Your task to perform on an android device: turn on bluetooth scan Image 0: 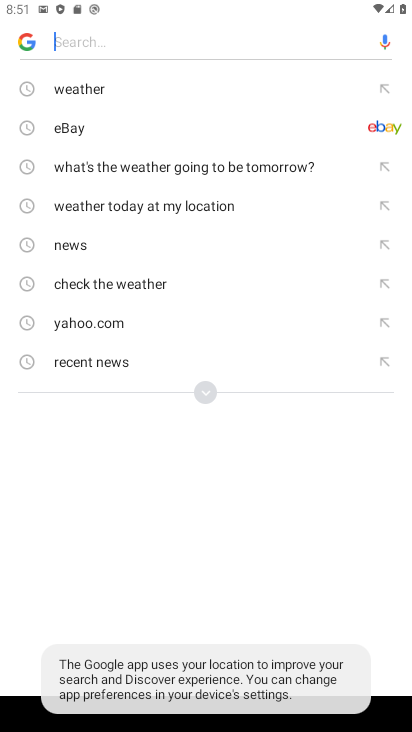
Step 0: press home button
Your task to perform on an android device: turn on bluetooth scan Image 1: 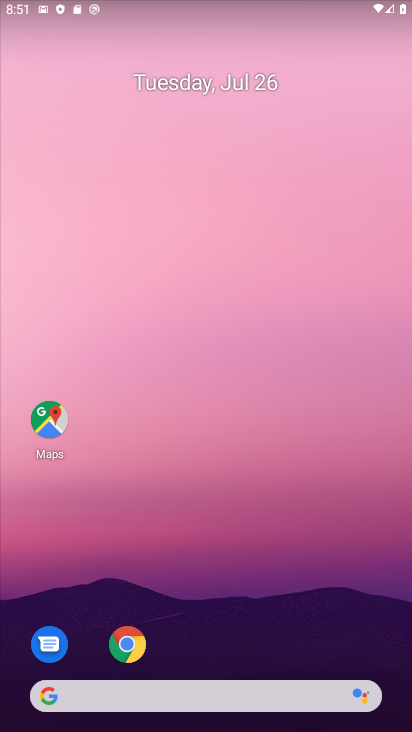
Step 1: drag from (234, 652) to (268, 163)
Your task to perform on an android device: turn on bluetooth scan Image 2: 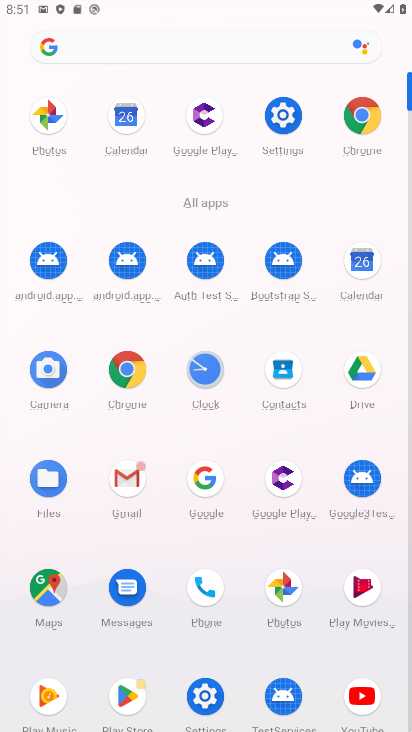
Step 2: click (282, 108)
Your task to perform on an android device: turn on bluetooth scan Image 3: 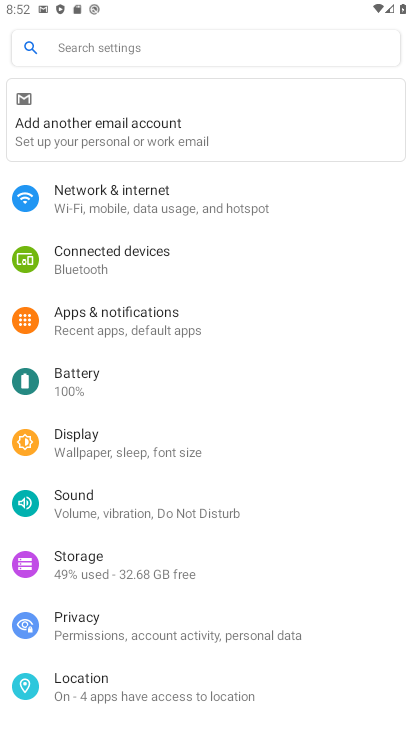
Step 3: click (67, 668)
Your task to perform on an android device: turn on bluetooth scan Image 4: 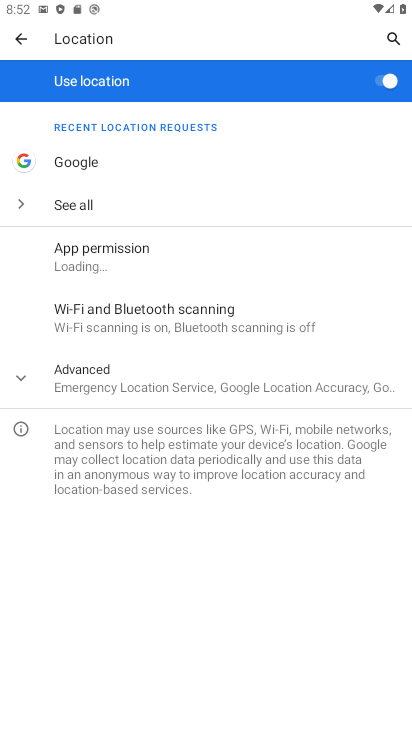
Step 4: click (276, 311)
Your task to perform on an android device: turn on bluetooth scan Image 5: 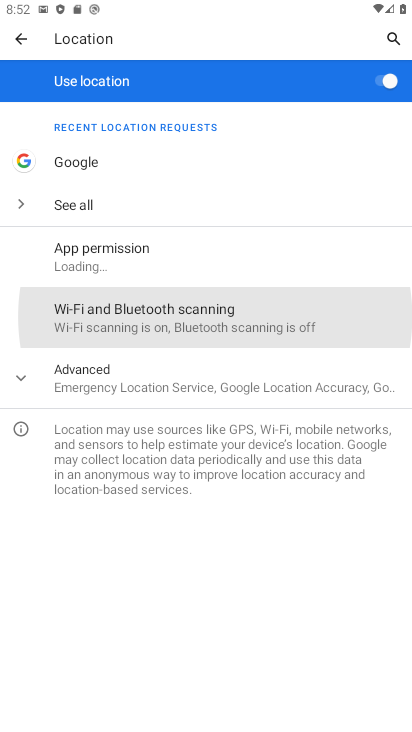
Step 5: click (276, 311)
Your task to perform on an android device: turn on bluetooth scan Image 6: 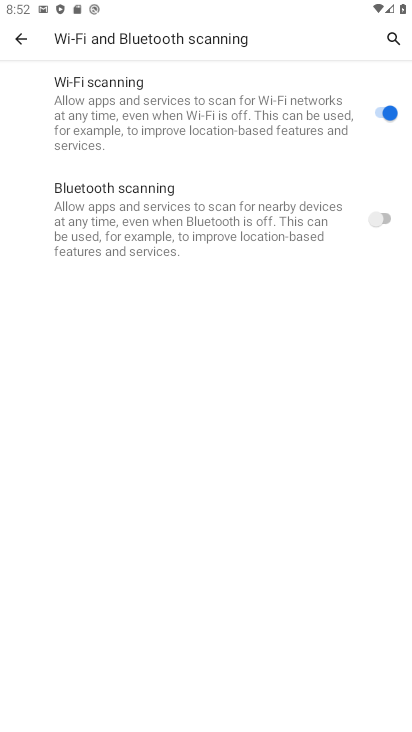
Step 6: click (380, 222)
Your task to perform on an android device: turn on bluetooth scan Image 7: 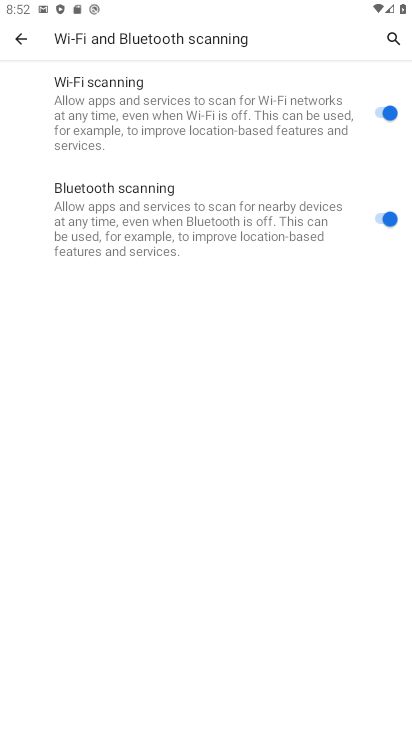
Step 7: task complete